Your task to perform on an android device: toggle data saver in the chrome app Image 0: 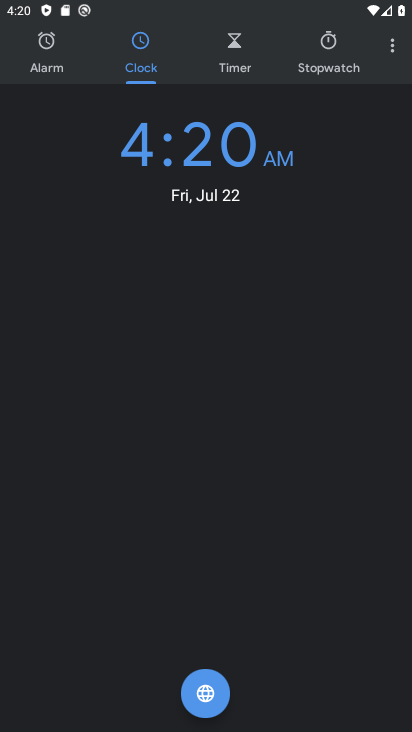
Step 0: press home button
Your task to perform on an android device: toggle data saver in the chrome app Image 1: 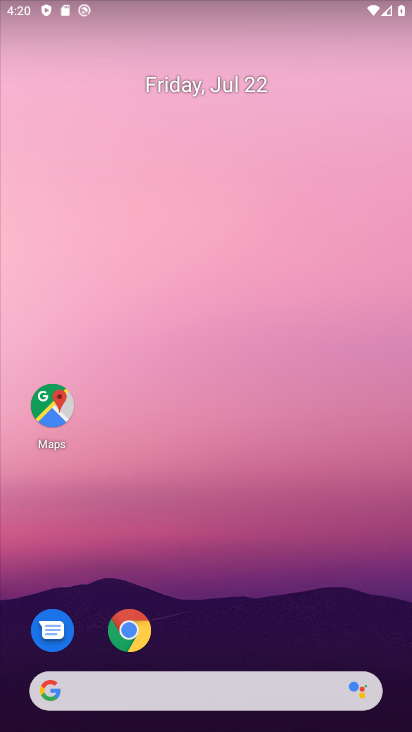
Step 1: click (121, 655)
Your task to perform on an android device: toggle data saver in the chrome app Image 2: 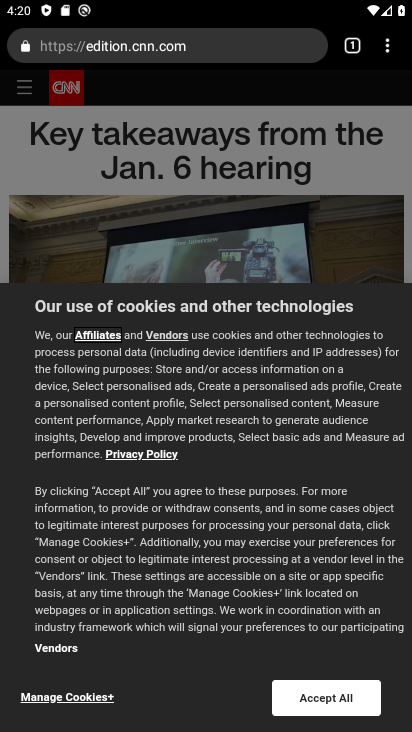
Step 2: click (385, 54)
Your task to perform on an android device: toggle data saver in the chrome app Image 3: 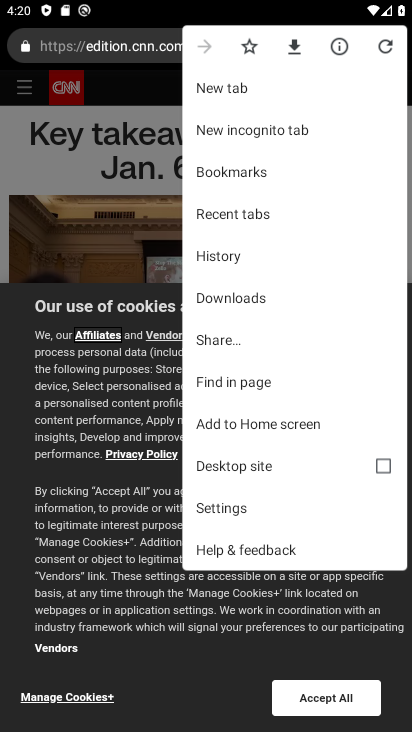
Step 3: click (226, 507)
Your task to perform on an android device: toggle data saver in the chrome app Image 4: 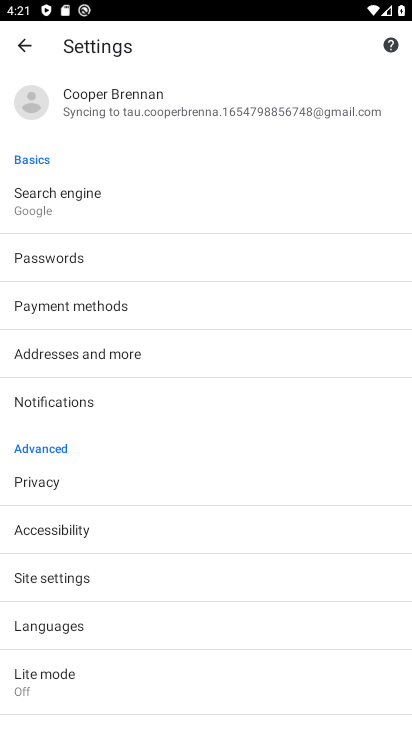
Step 4: click (72, 690)
Your task to perform on an android device: toggle data saver in the chrome app Image 5: 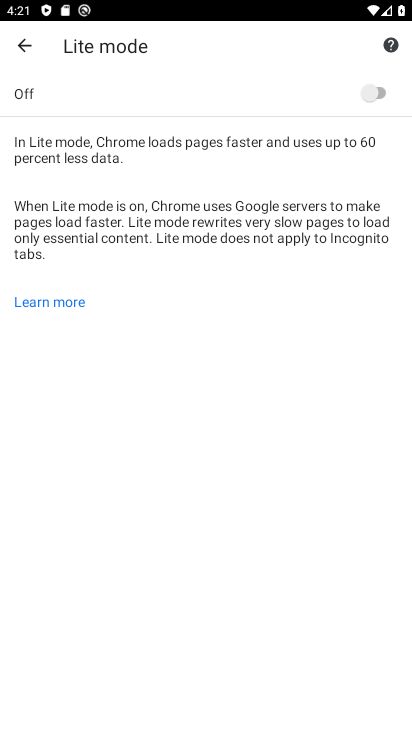
Step 5: click (376, 87)
Your task to perform on an android device: toggle data saver in the chrome app Image 6: 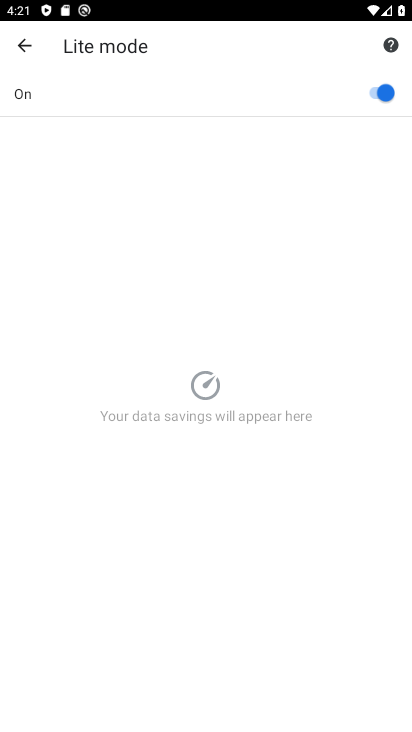
Step 6: task complete